Your task to perform on an android device: Open Google Maps Image 0: 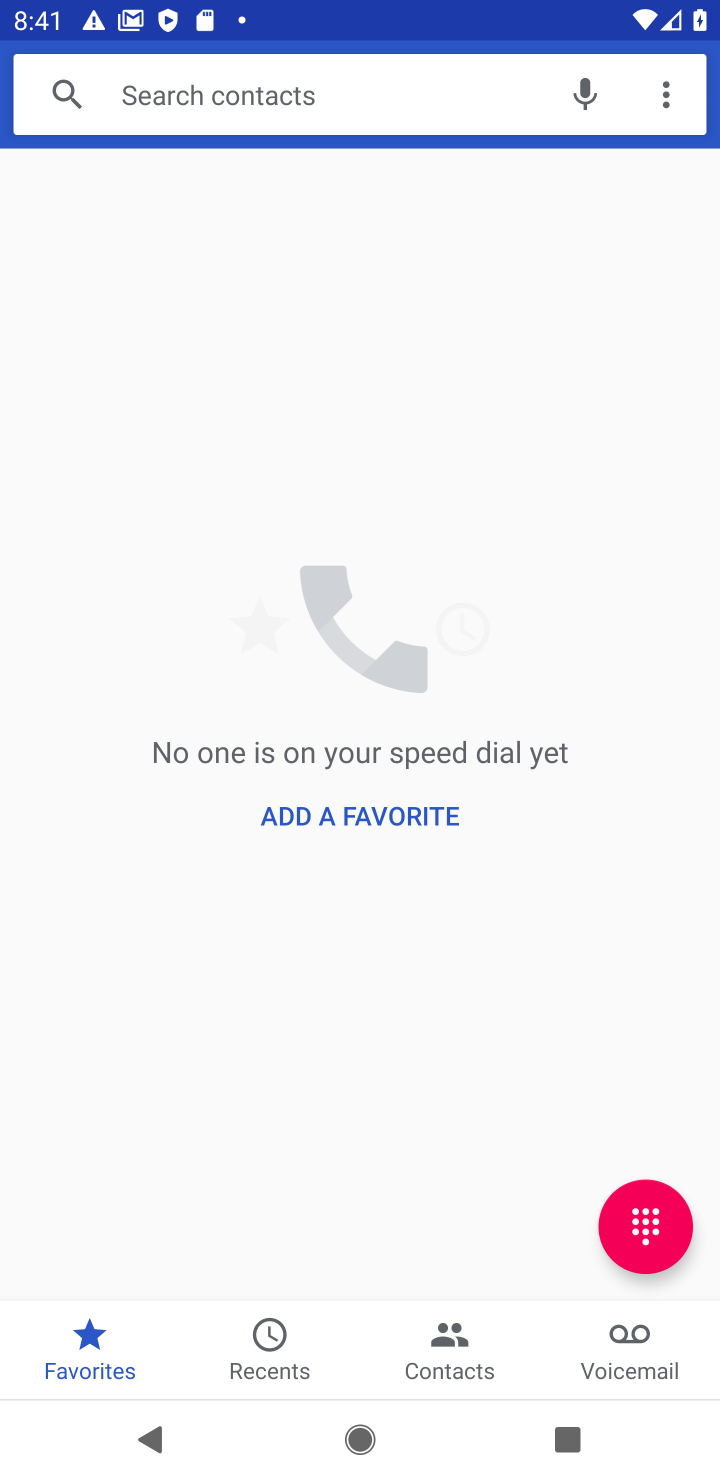
Step 0: press home button
Your task to perform on an android device: Open Google Maps Image 1: 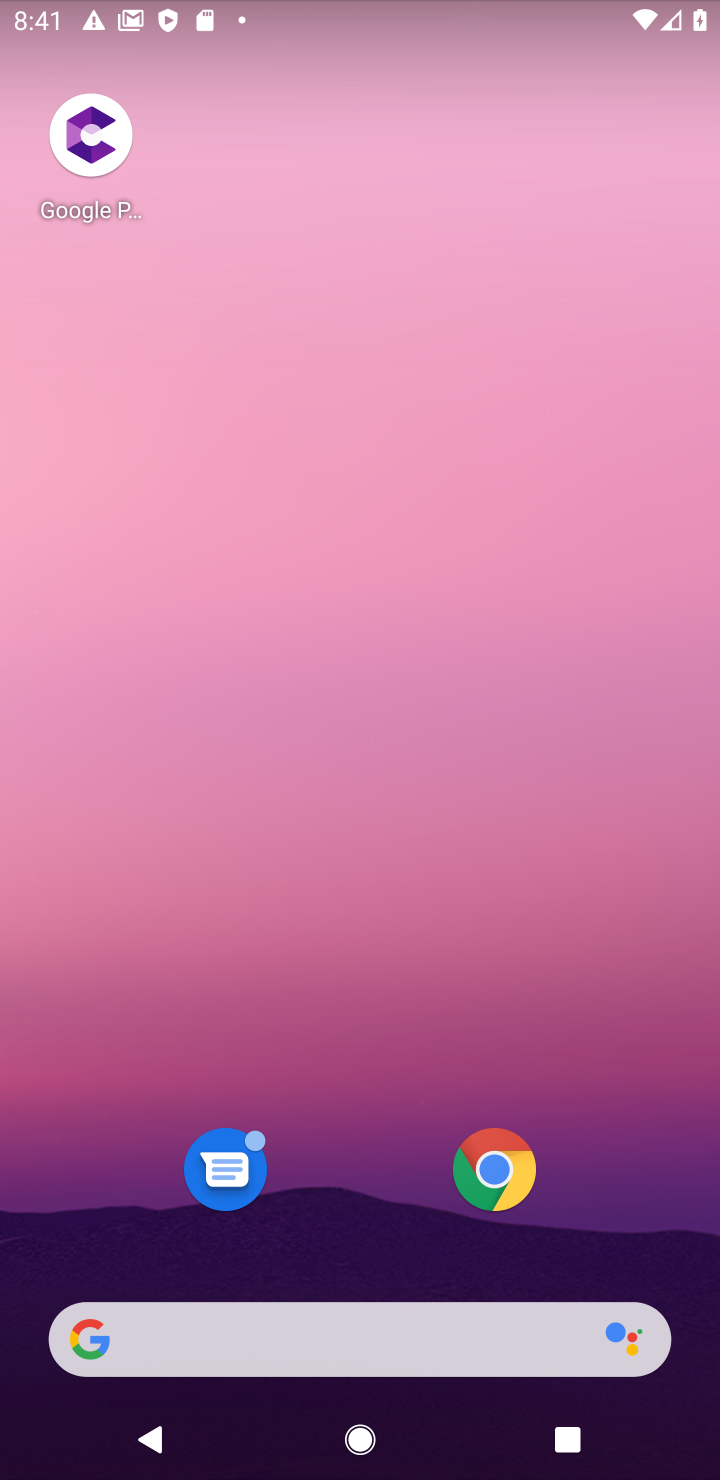
Step 1: drag from (424, 1428) to (386, 286)
Your task to perform on an android device: Open Google Maps Image 2: 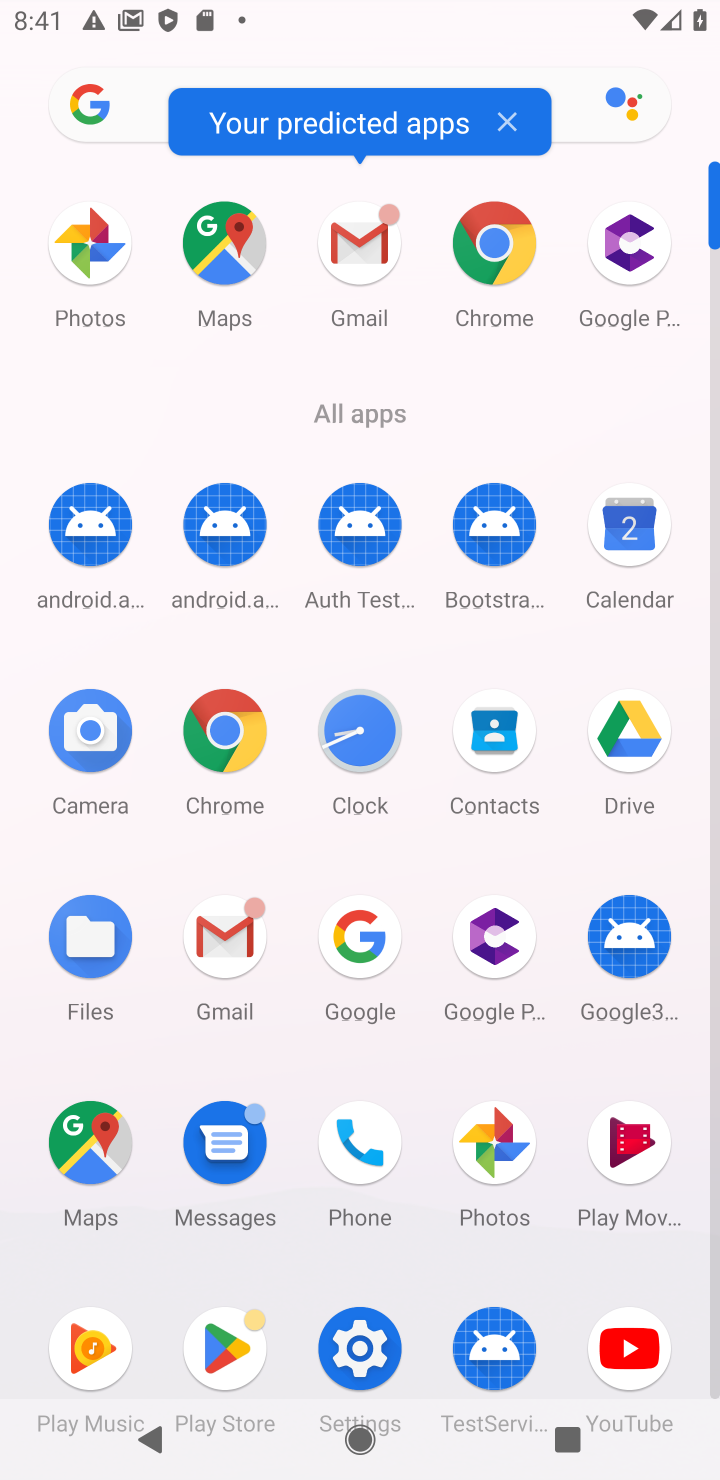
Step 2: click (90, 1152)
Your task to perform on an android device: Open Google Maps Image 3: 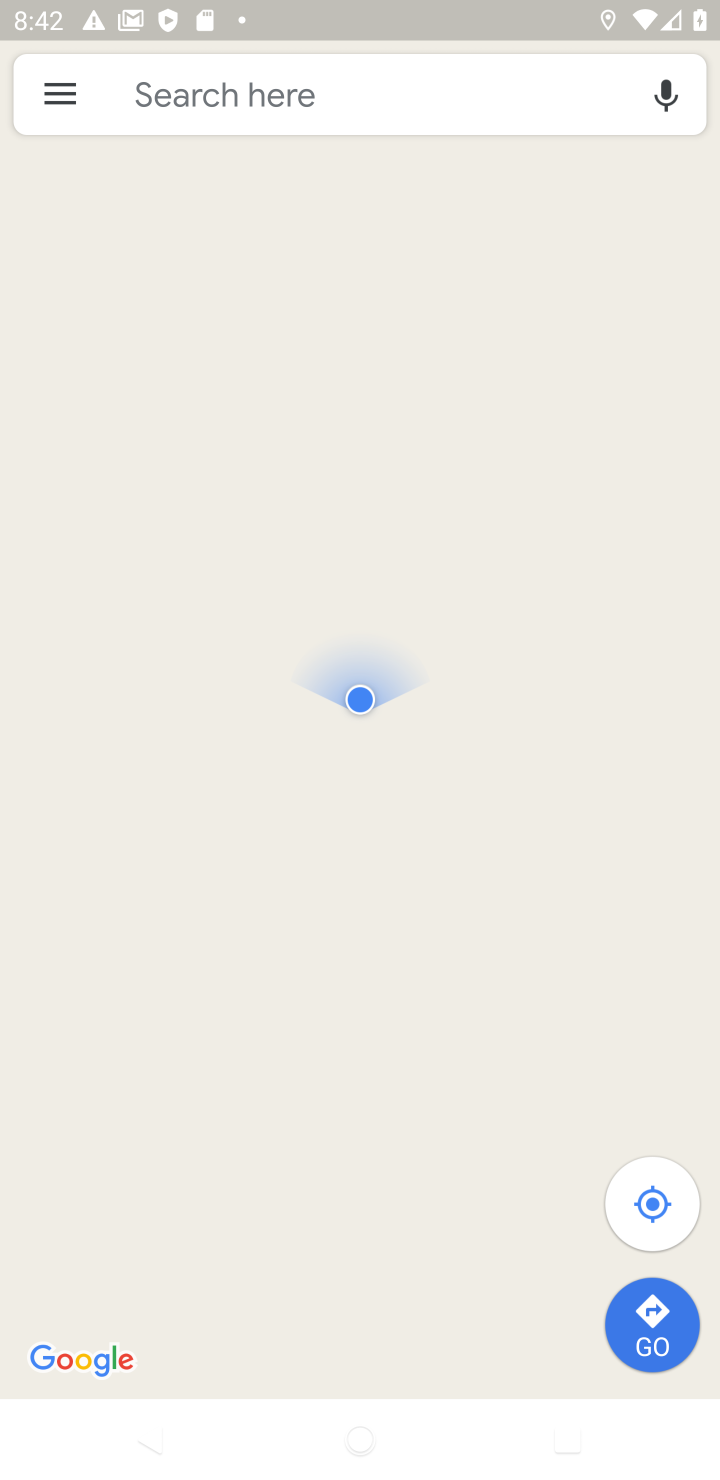
Step 3: task complete